Your task to perform on an android device: turn on the 12-hour format for clock Image 0: 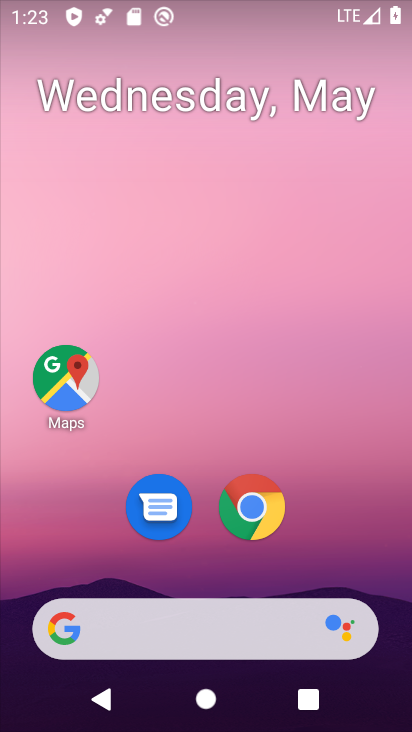
Step 0: drag from (395, 587) to (240, 164)
Your task to perform on an android device: turn on the 12-hour format for clock Image 1: 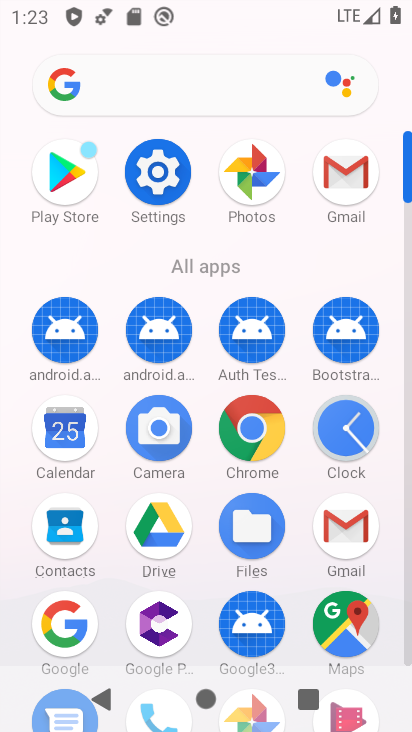
Step 1: click (350, 425)
Your task to perform on an android device: turn on the 12-hour format for clock Image 2: 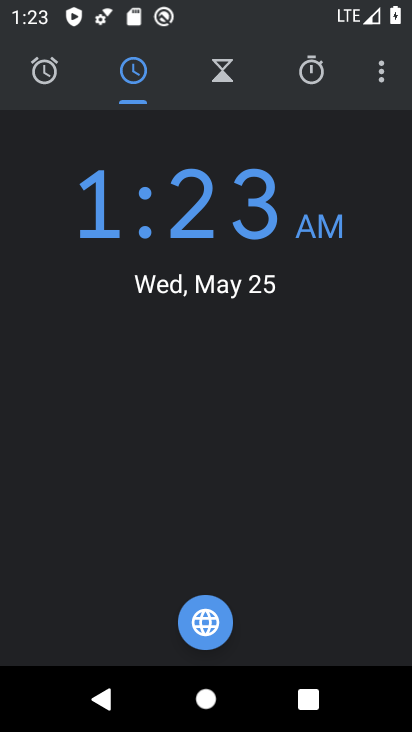
Step 2: click (389, 66)
Your task to perform on an android device: turn on the 12-hour format for clock Image 3: 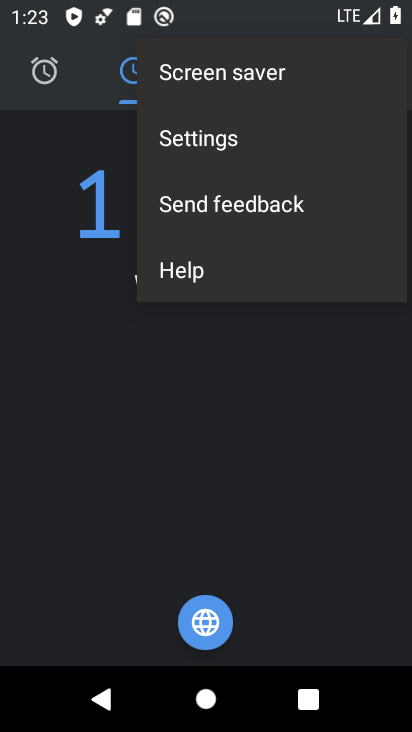
Step 3: click (241, 130)
Your task to perform on an android device: turn on the 12-hour format for clock Image 4: 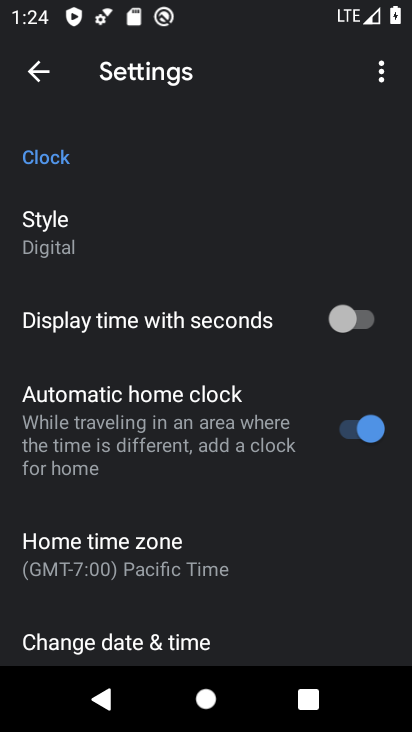
Step 4: drag from (229, 388) to (167, 62)
Your task to perform on an android device: turn on the 12-hour format for clock Image 5: 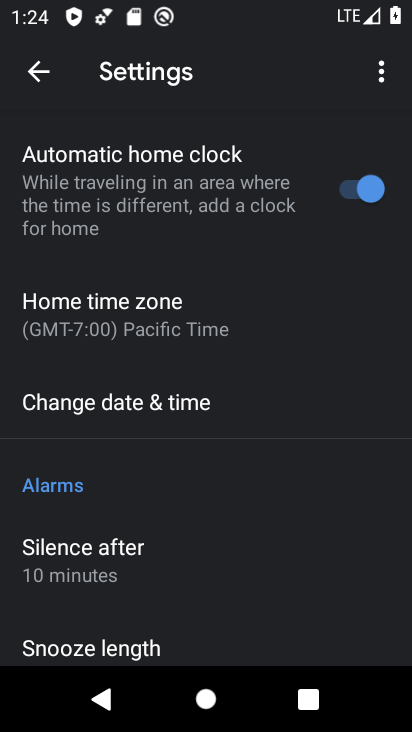
Step 5: click (227, 415)
Your task to perform on an android device: turn on the 12-hour format for clock Image 6: 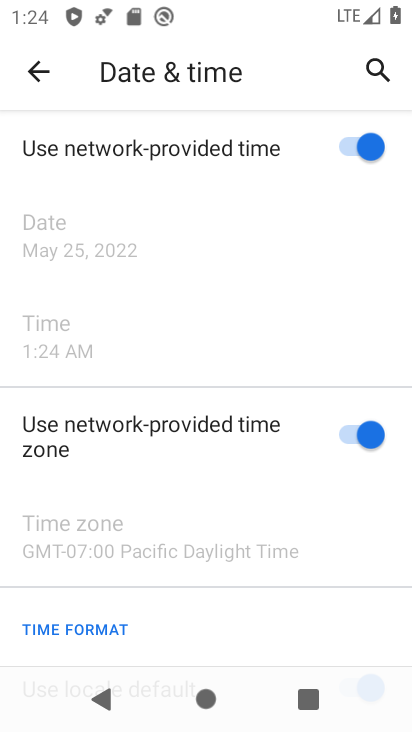
Step 6: task complete